Your task to perform on an android device: Show me productivity apps on the Play Store Image 0: 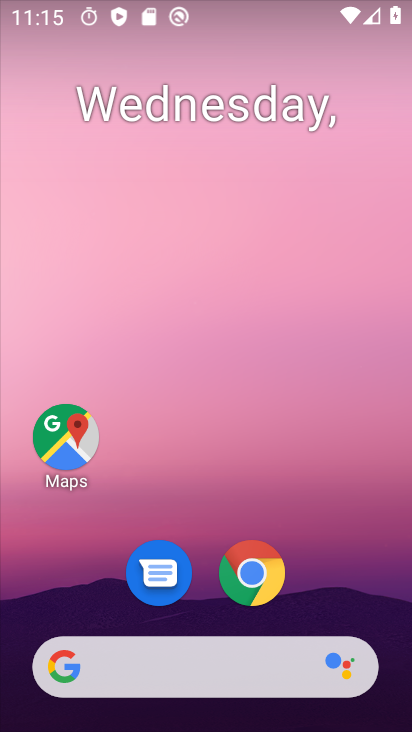
Step 0: drag from (361, 526) to (366, 224)
Your task to perform on an android device: Show me productivity apps on the Play Store Image 1: 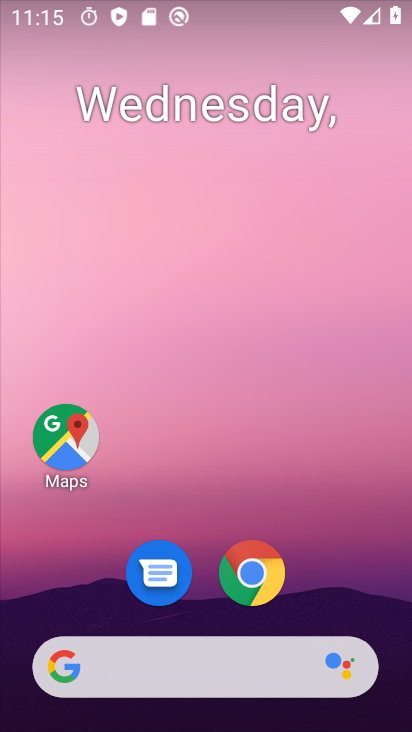
Step 1: drag from (393, 516) to (395, 277)
Your task to perform on an android device: Show me productivity apps on the Play Store Image 2: 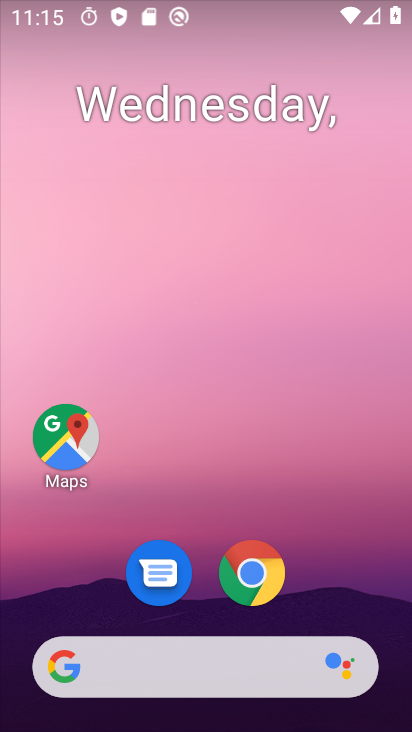
Step 2: drag from (382, 287) to (380, 218)
Your task to perform on an android device: Show me productivity apps on the Play Store Image 3: 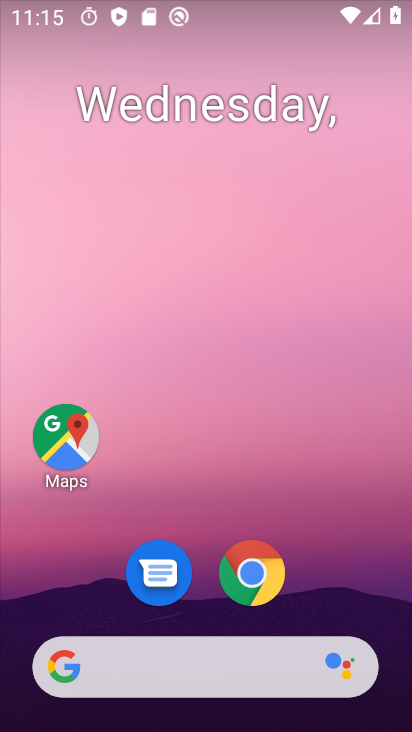
Step 3: drag from (389, 483) to (359, 185)
Your task to perform on an android device: Show me productivity apps on the Play Store Image 4: 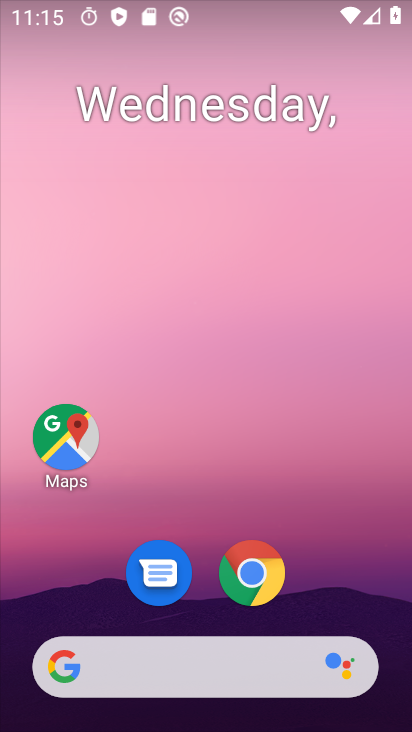
Step 4: drag from (396, 300) to (396, 247)
Your task to perform on an android device: Show me productivity apps on the Play Store Image 5: 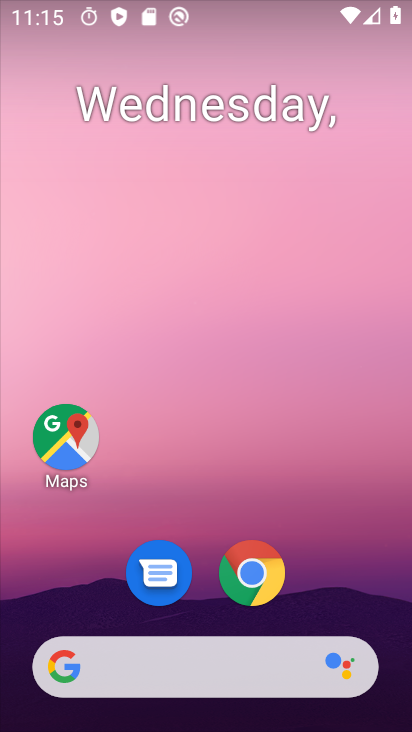
Step 5: drag from (405, 419) to (406, 179)
Your task to perform on an android device: Show me productivity apps on the Play Store Image 6: 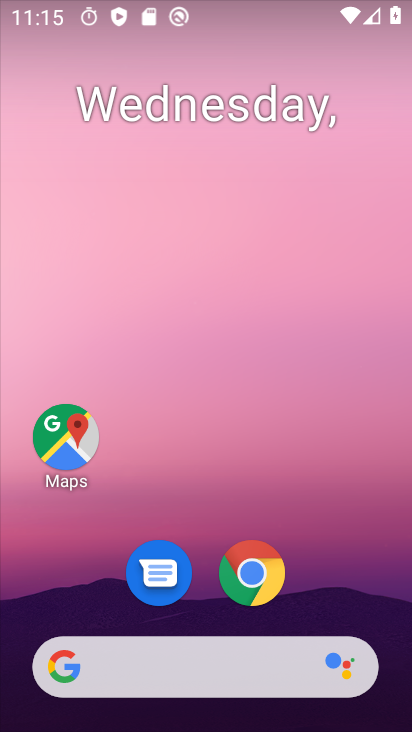
Step 6: click (372, 153)
Your task to perform on an android device: Show me productivity apps on the Play Store Image 7: 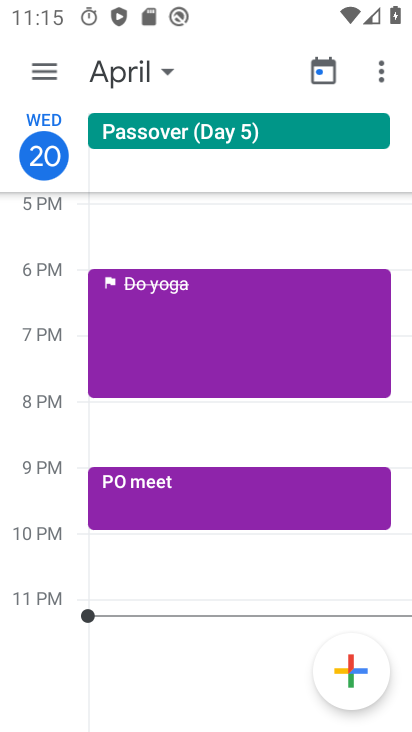
Step 7: press home button
Your task to perform on an android device: Show me productivity apps on the Play Store Image 8: 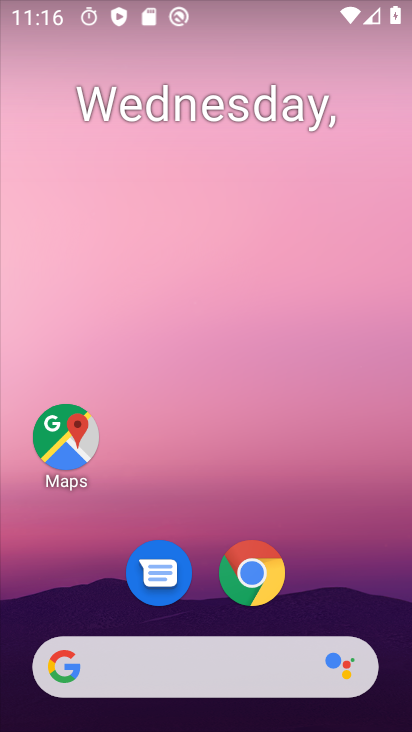
Step 8: drag from (378, 615) to (366, 86)
Your task to perform on an android device: Show me productivity apps on the Play Store Image 9: 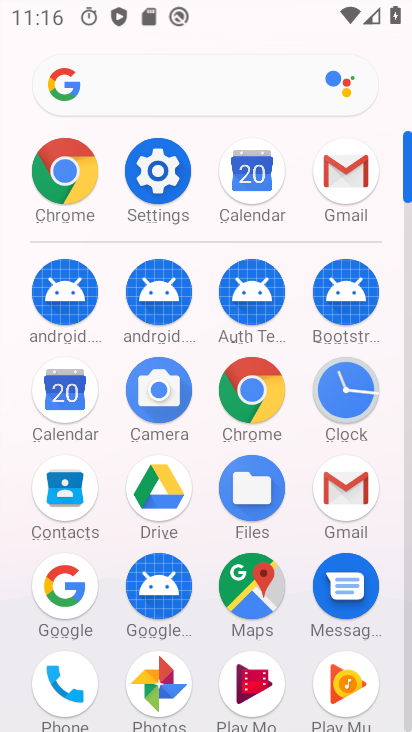
Step 9: drag from (201, 647) to (239, 357)
Your task to perform on an android device: Show me productivity apps on the Play Store Image 10: 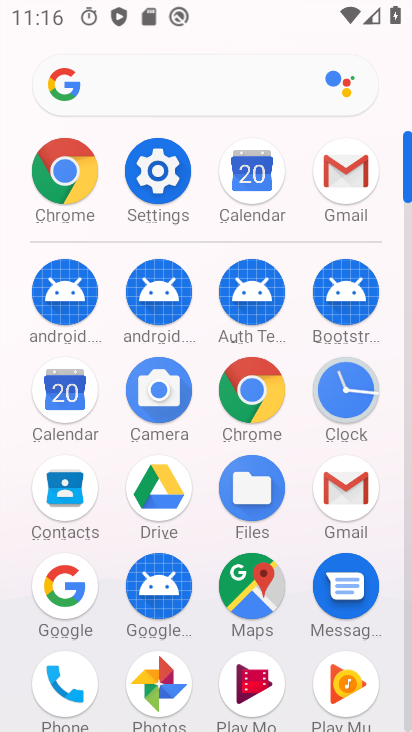
Step 10: drag from (194, 551) to (194, 351)
Your task to perform on an android device: Show me productivity apps on the Play Store Image 11: 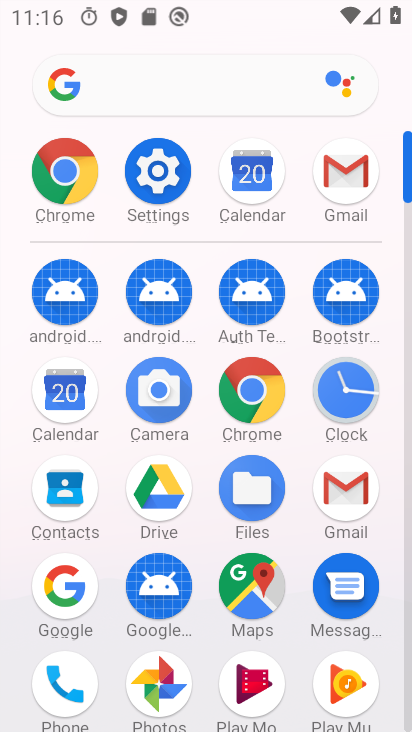
Step 11: drag from (201, 555) to (193, 407)
Your task to perform on an android device: Show me productivity apps on the Play Store Image 12: 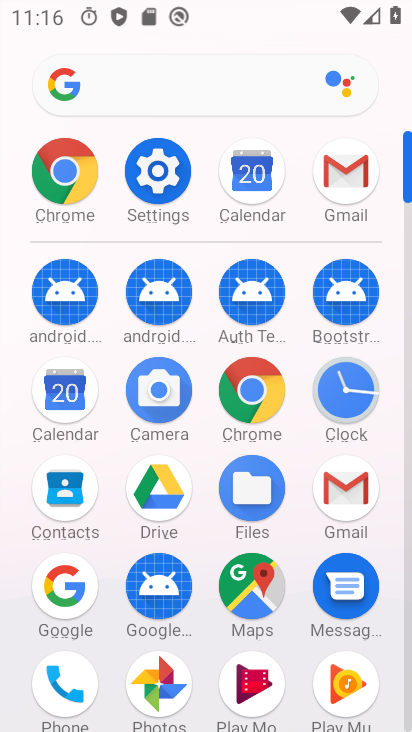
Step 12: drag from (405, 159) to (406, 81)
Your task to perform on an android device: Show me productivity apps on the Play Store Image 13: 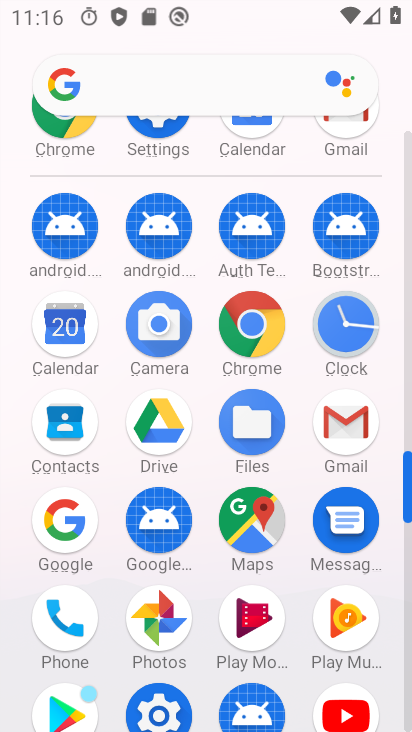
Step 13: click (73, 701)
Your task to perform on an android device: Show me productivity apps on the Play Store Image 14: 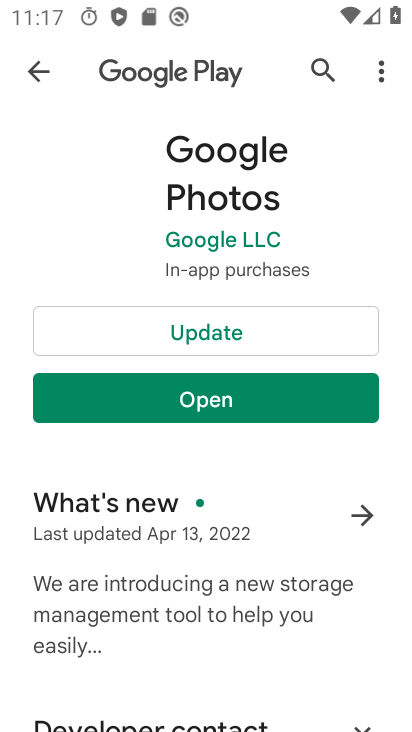
Step 14: click (227, 328)
Your task to perform on an android device: Show me productivity apps on the Play Store Image 15: 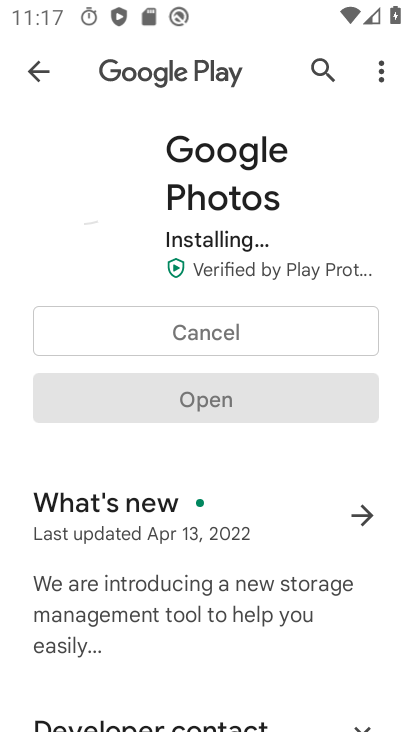
Step 15: press home button
Your task to perform on an android device: Show me productivity apps on the Play Store Image 16: 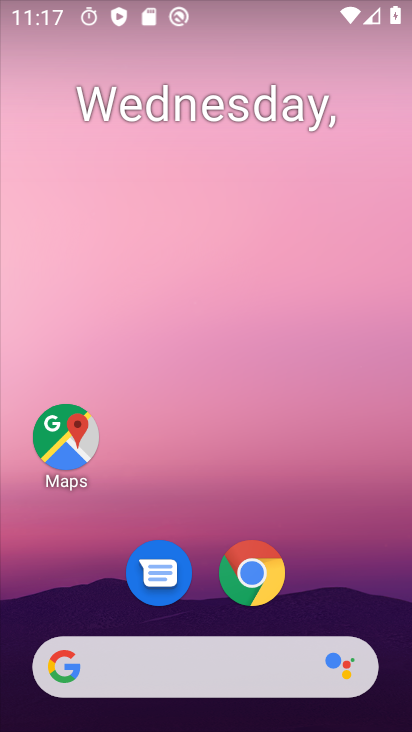
Step 16: drag from (360, 611) to (409, 60)
Your task to perform on an android device: Show me productivity apps on the Play Store Image 17: 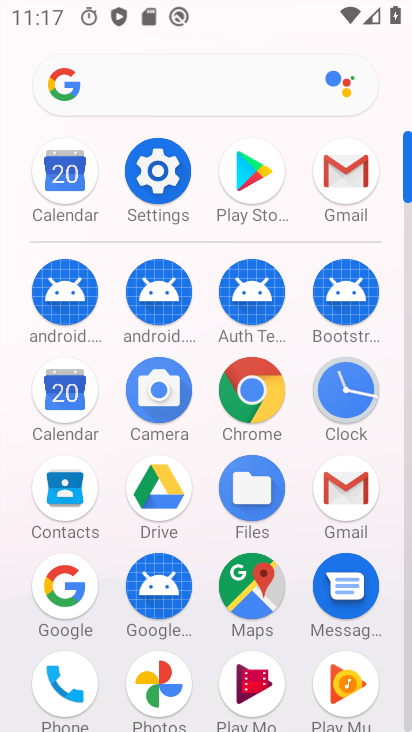
Step 17: drag from (400, 135) to (399, 55)
Your task to perform on an android device: Show me productivity apps on the Play Store Image 18: 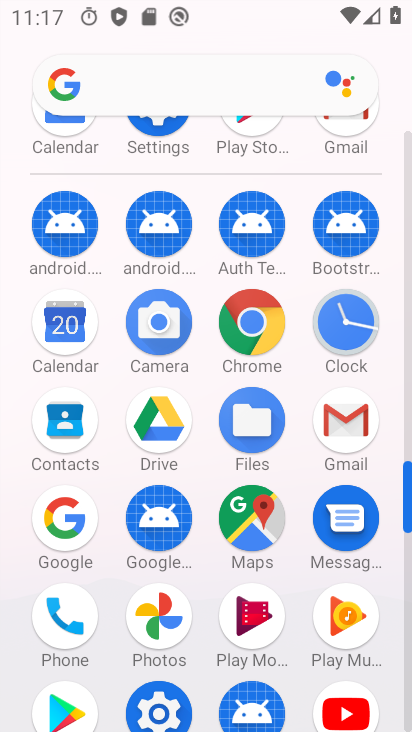
Step 18: click (71, 687)
Your task to perform on an android device: Show me productivity apps on the Play Store Image 19: 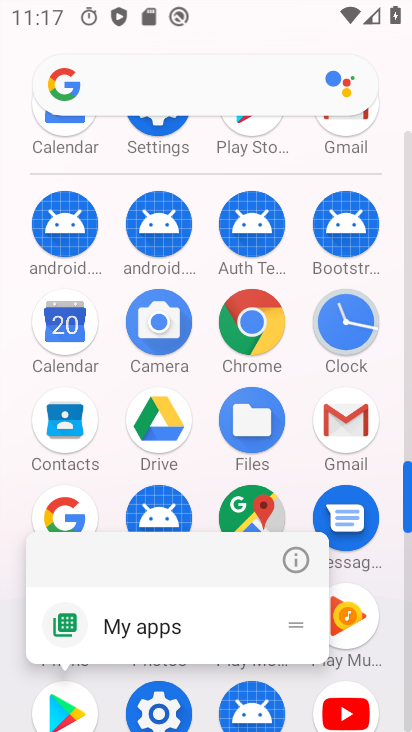
Step 19: click (56, 712)
Your task to perform on an android device: Show me productivity apps on the Play Store Image 20: 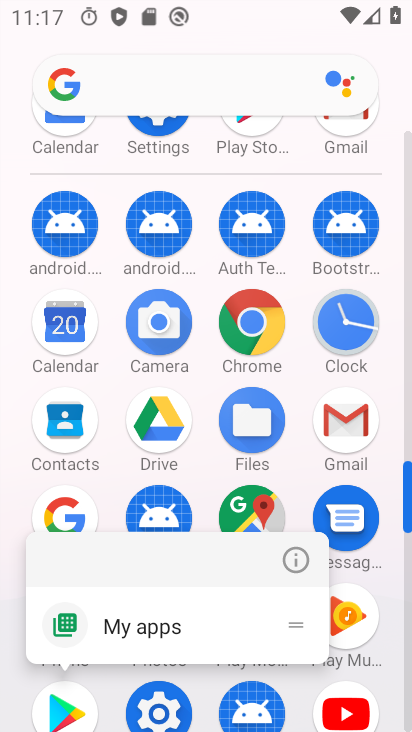
Step 20: click (56, 712)
Your task to perform on an android device: Show me productivity apps on the Play Store Image 21: 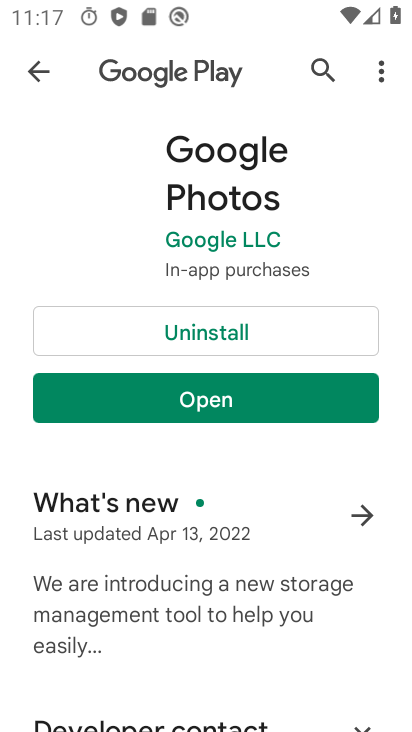
Step 21: click (28, 60)
Your task to perform on an android device: Show me productivity apps on the Play Store Image 22: 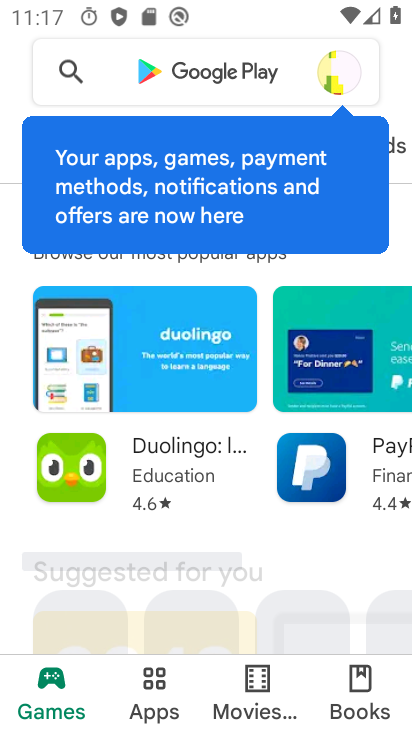
Step 22: click (185, 64)
Your task to perform on an android device: Show me productivity apps on the Play Store Image 23: 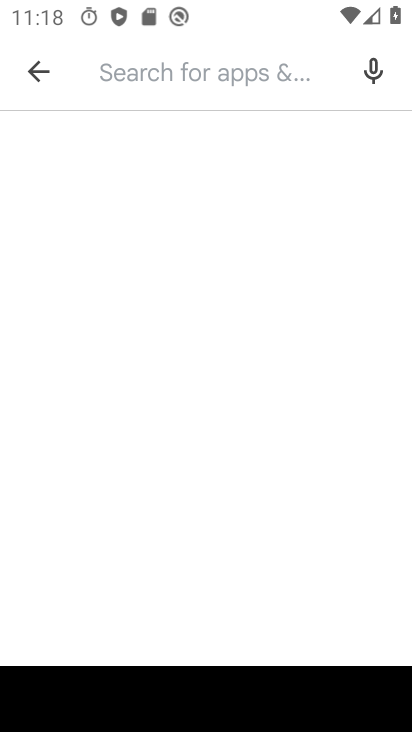
Step 23: type "productivity apps"
Your task to perform on an android device: Show me productivity apps on the Play Store Image 24: 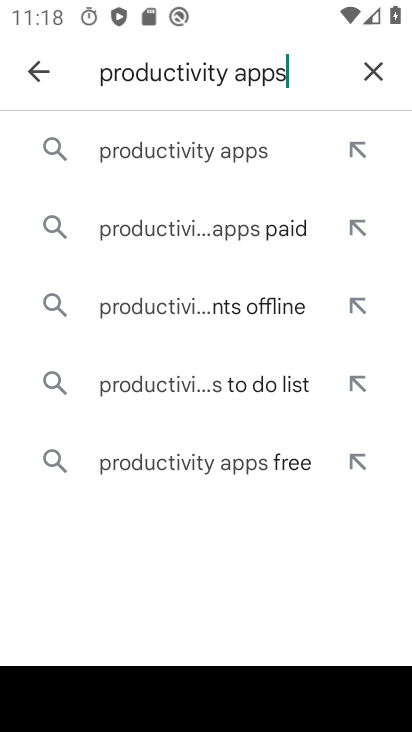
Step 24: click (160, 153)
Your task to perform on an android device: Show me productivity apps on the Play Store Image 25: 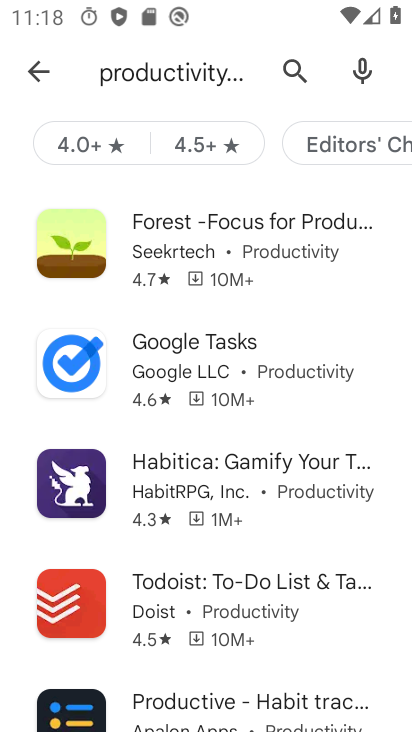
Step 25: task complete